Your task to perform on an android device: turn off data saver in the chrome app Image 0: 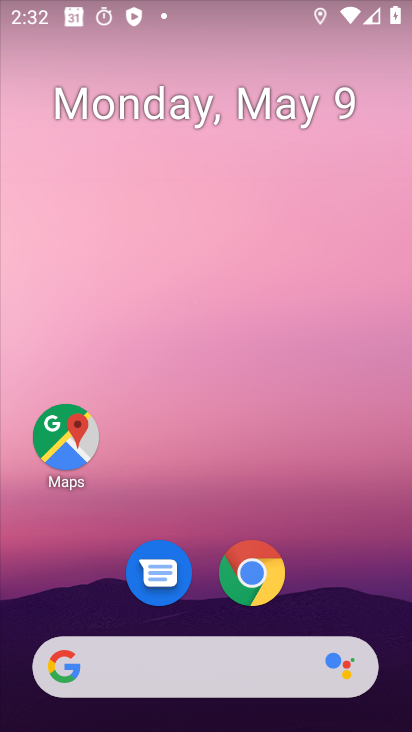
Step 0: drag from (357, 677) to (212, 68)
Your task to perform on an android device: turn off data saver in the chrome app Image 1: 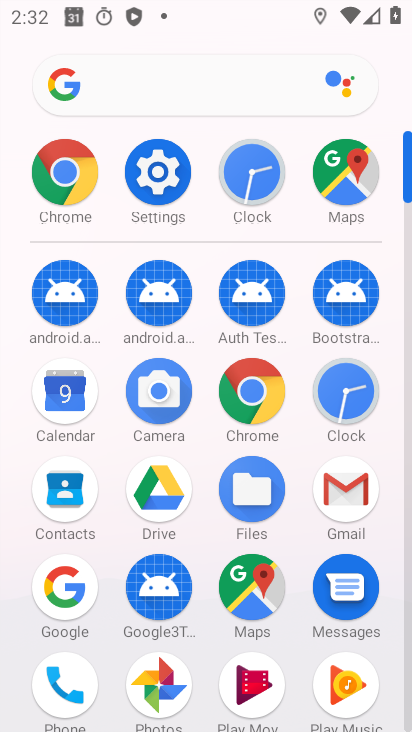
Step 1: click (72, 184)
Your task to perform on an android device: turn off data saver in the chrome app Image 2: 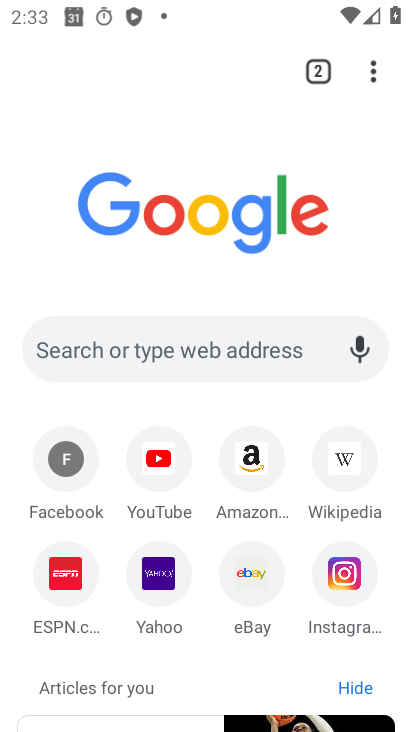
Step 2: drag from (364, 68) to (102, 597)
Your task to perform on an android device: turn off data saver in the chrome app Image 3: 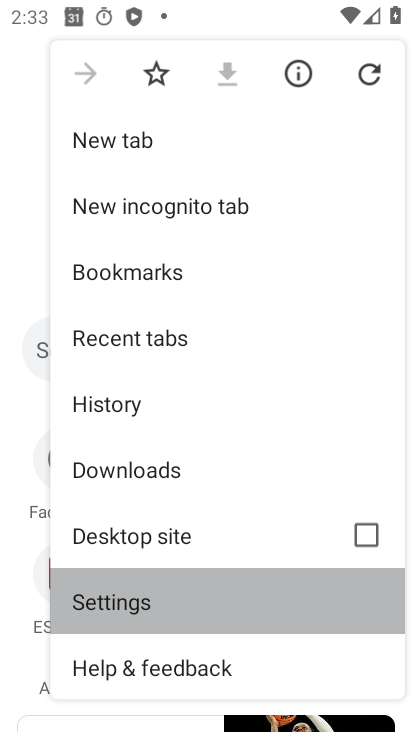
Step 3: click (103, 597)
Your task to perform on an android device: turn off data saver in the chrome app Image 4: 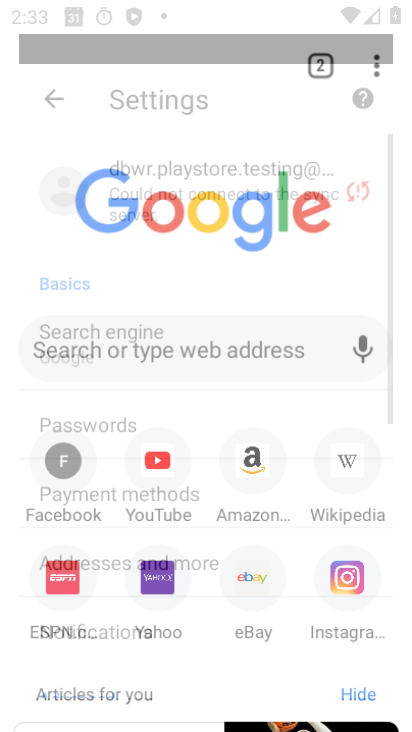
Step 4: click (103, 597)
Your task to perform on an android device: turn off data saver in the chrome app Image 5: 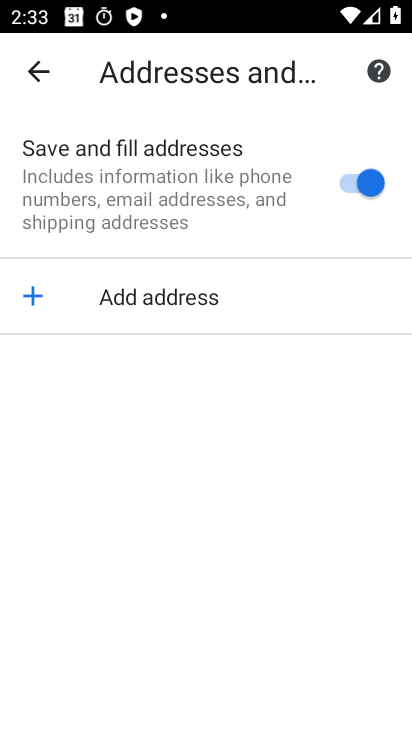
Step 5: click (37, 64)
Your task to perform on an android device: turn off data saver in the chrome app Image 6: 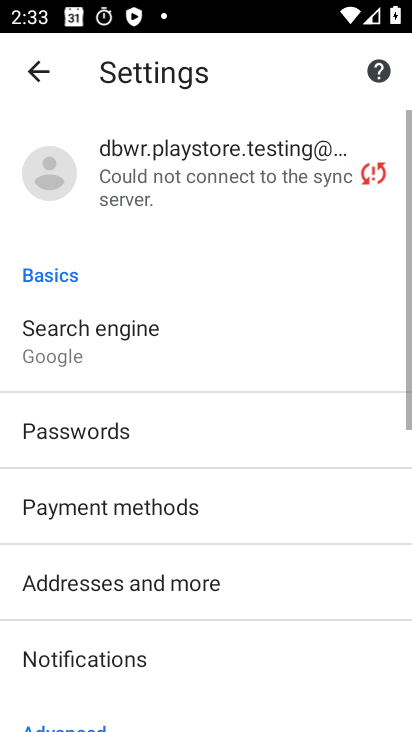
Step 6: drag from (179, 614) to (113, 120)
Your task to perform on an android device: turn off data saver in the chrome app Image 7: 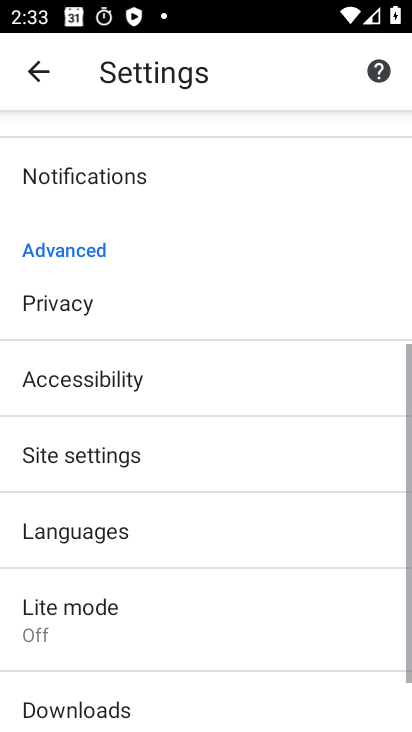
Step 7: drag from (162, 506) to (101, 128)
Your task to perform on an android device: turn off data saver in the chrome app Image 8: 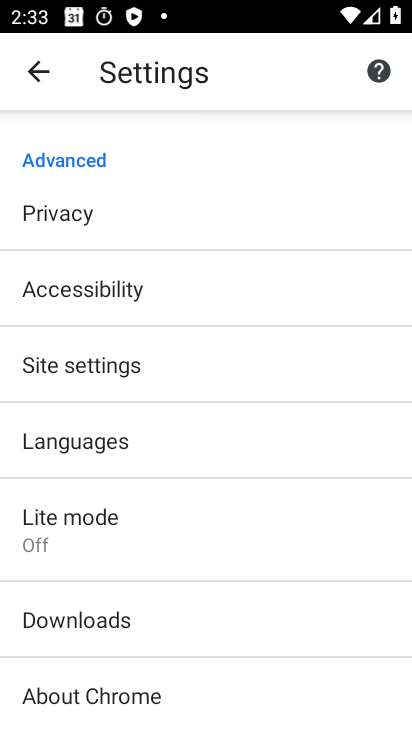
Step 8: click (57, 365)
Your task to perform on an android device: turn off data saver in the chrome app Image 9: 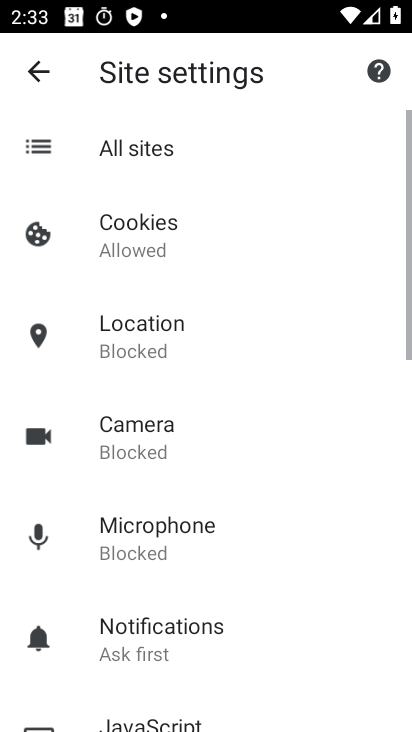
Step 9: click (33, 57)
Your task to perform on an android device: turn off data saver in the chrome app Image 10: 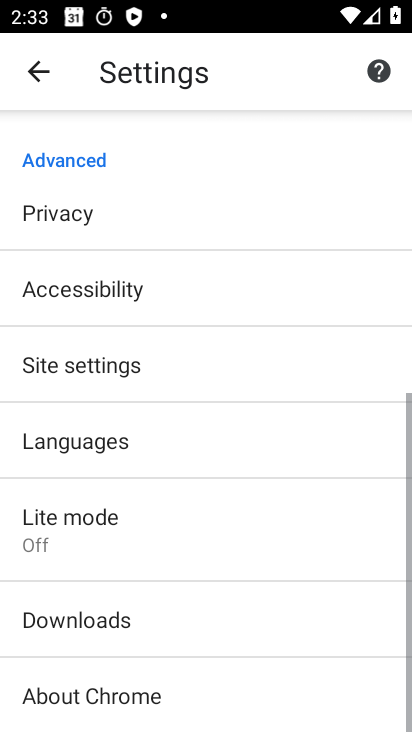
Step 10: click (72, 520)
Your task to perform on an android device: turn off data saver in the chrome app Image 11: 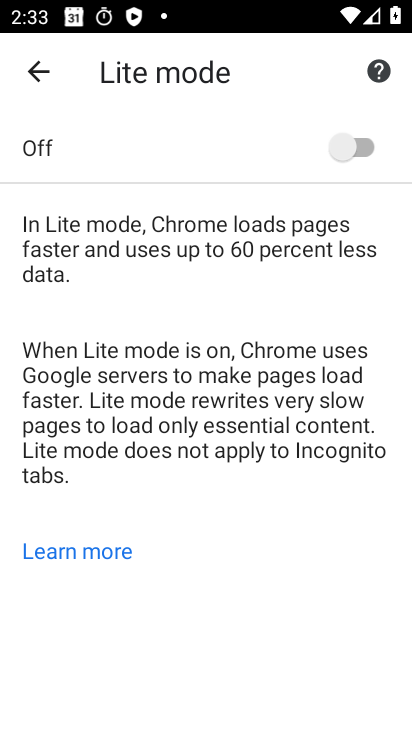
Step 11: click (325, 148)
Your task to perform on an android device: turn off data saver in the chrome app Image 12: 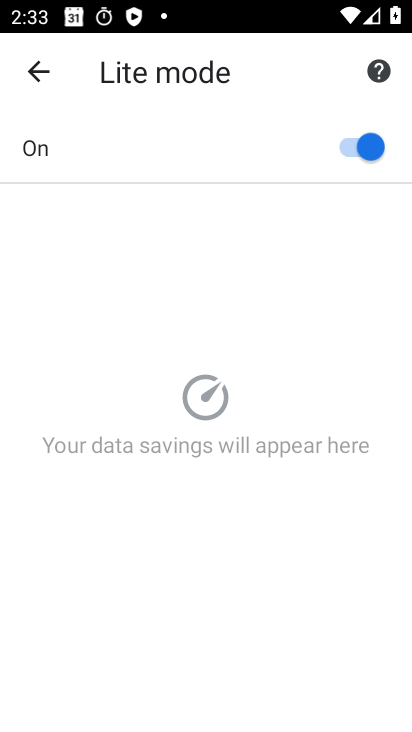
Step 12: click (347, 154)
Your task to perform on an android device: turn off data saver in the chrome app Image 13: 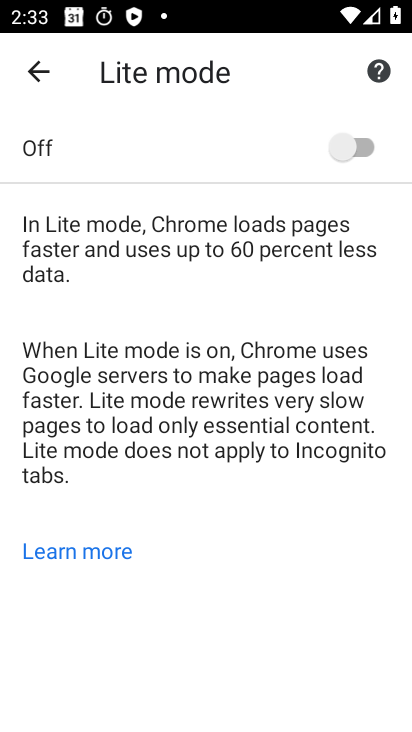
Step 13: task complete